Your task to perform on an android device: Go to location settings Image 0: 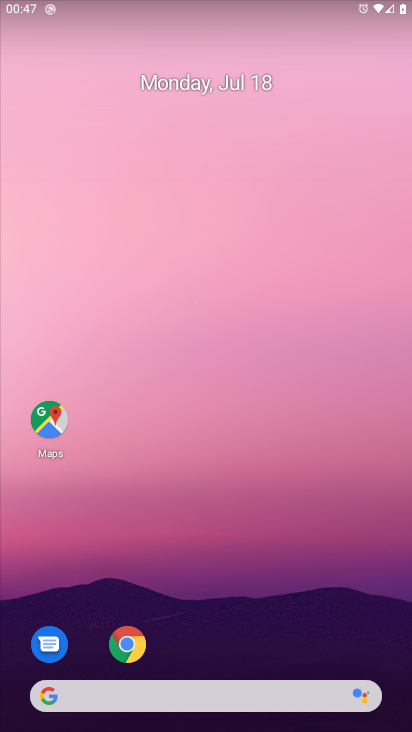
Step 0: press home button
Your task to perform on an android device: Go to location settings Image 1: 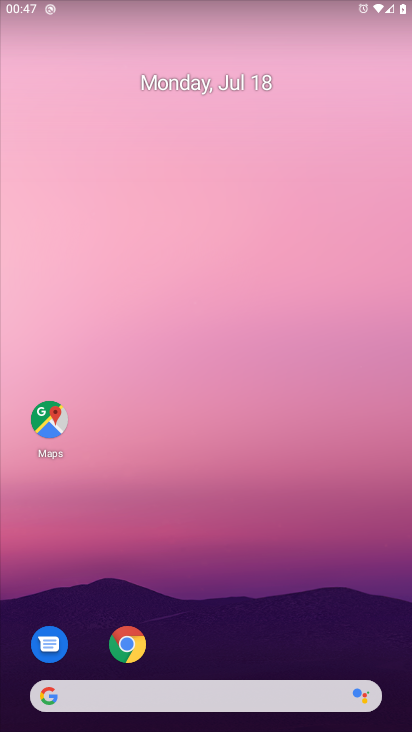
Step 1: drag from (282, 584) to (268, 155)
Your task to perform on an android device: Go to location settings Image 2: 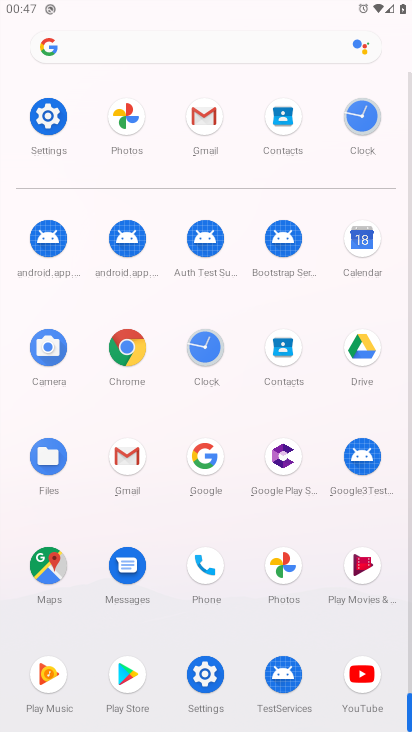
Step 2: click (60, 119)
Your task to perform on an android device: Go to location settings Image 3: 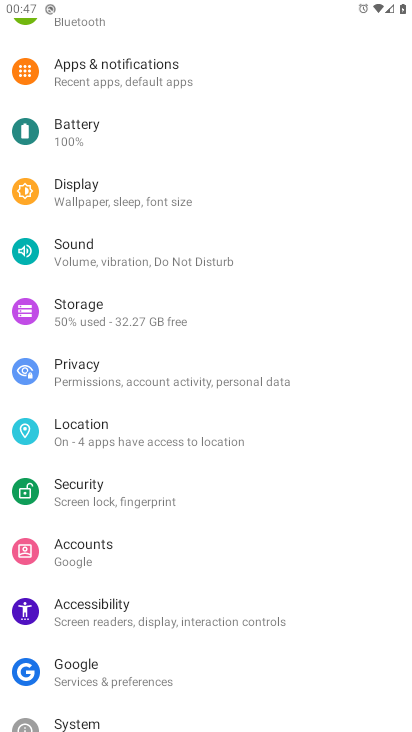
Step 3: click (121, 420)
Your task to perform on an android device: Go to location settings Image 4: 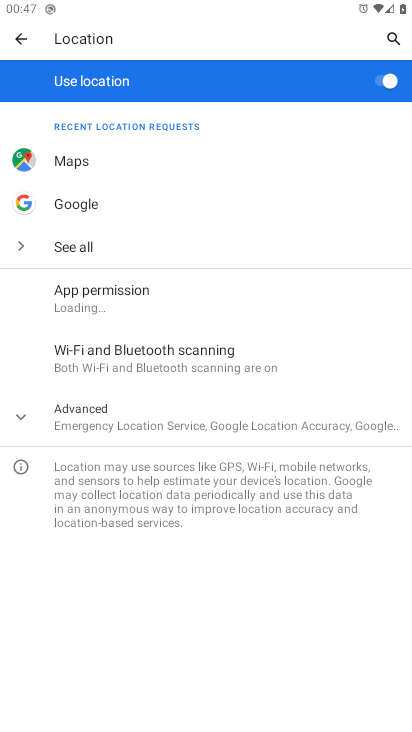
Step 4: task complete